Your task to perform on an android device: allow cookies in the chrome app Image 0: 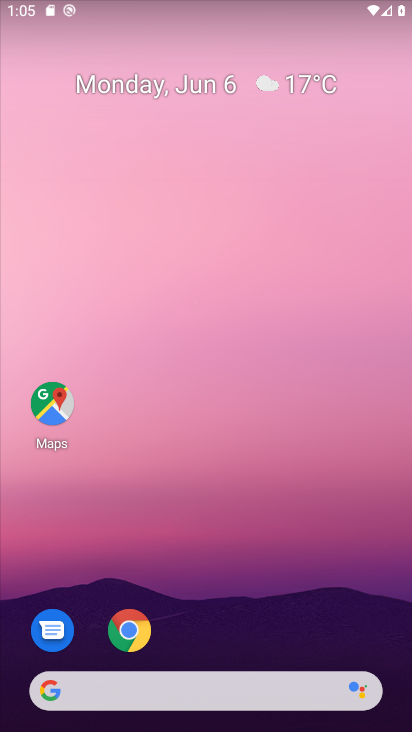
Step 0: click (127, 643)
Your task to perform on an android device: allow cookies in the chrome app Image 1: 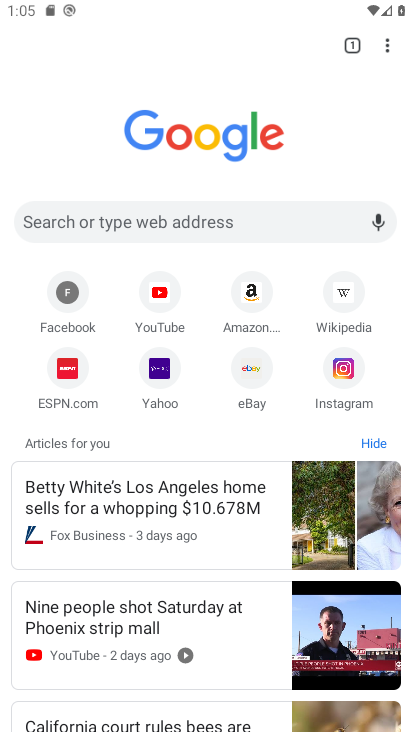
Step 1: click (385, 46)
Your task to perform on an android device: allow cookies in the chrome app Image 2: 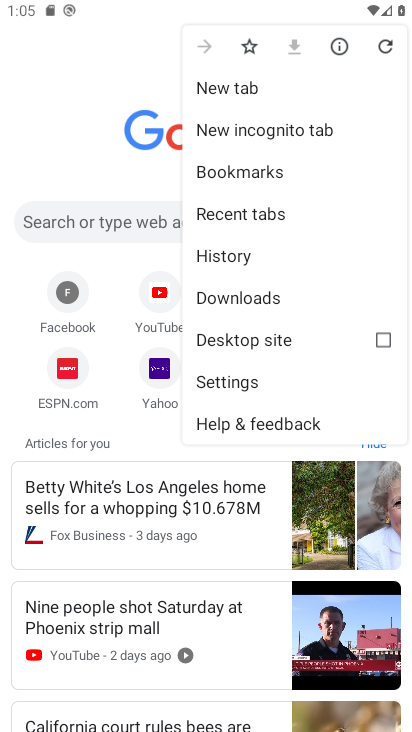
Step 2: click (247, 381)
Your task to perform on an android device: allow cookies in the chrome app Image 3: 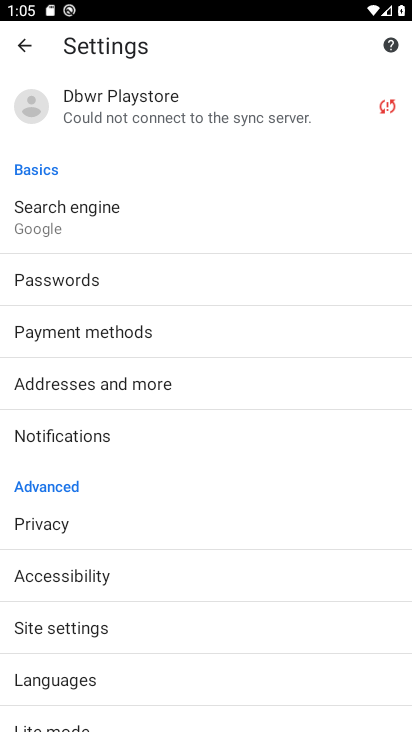
Step 3: click (83, 626)
Your task to perform on an android device: allow cookies in the chrome app Image 4: 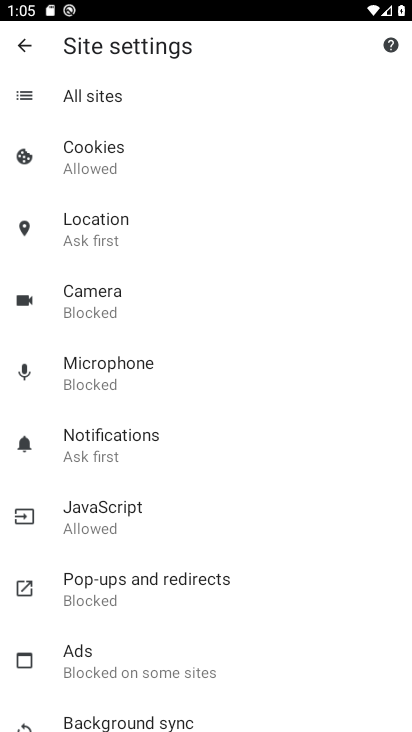
Step 4: click (108, 151)
Your task to perform on an android device: allow cookies in the chrome app Image 5: 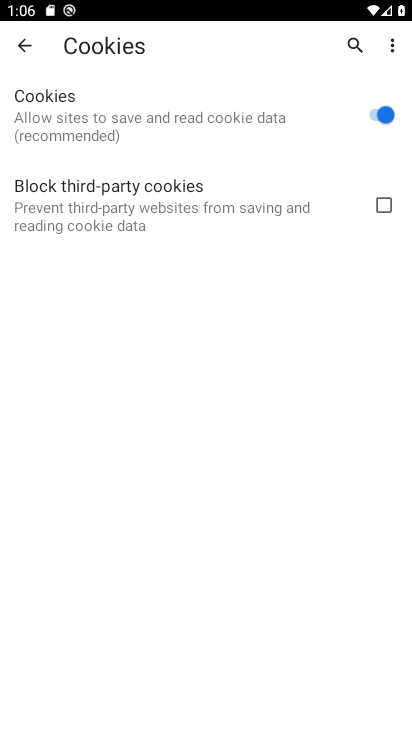
Step 5: task complete